Your task to perform on an android device: When is my next meeting? Image 0: 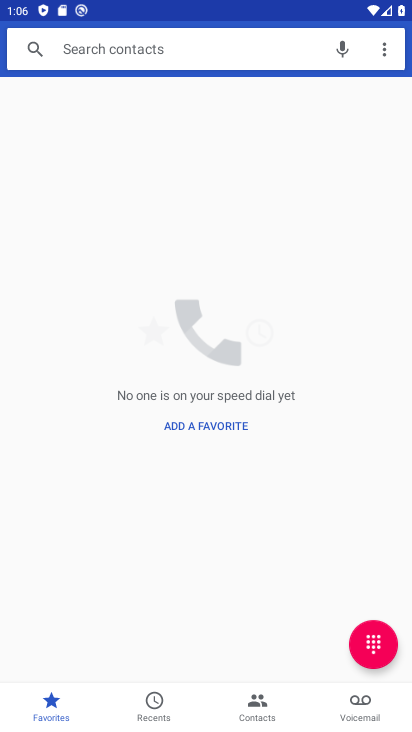
Step 0: press home button
Your task to perform on an android device: When is my next meeting? Image 1: 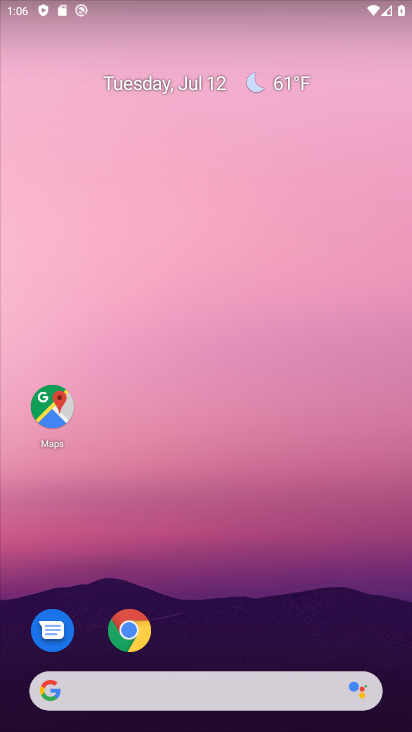
Step 1: drag from (207, 601) to (227, 176)
Your task to perform on an android device: When is my next meeting? Image 2: 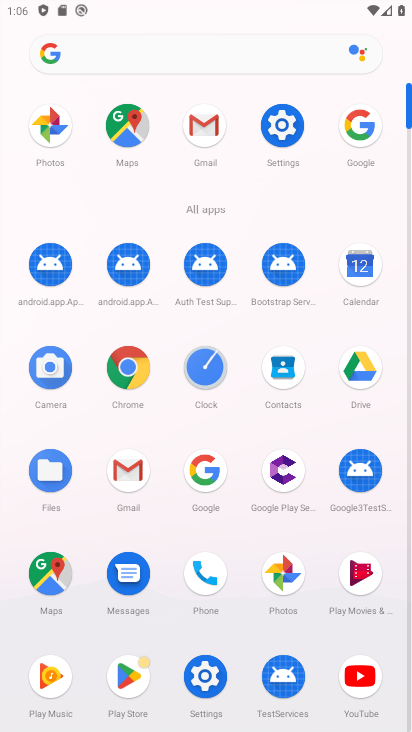
Step 2: click (341, 264)
Your task to perform on an android device: When is my next meeting? Image 3: 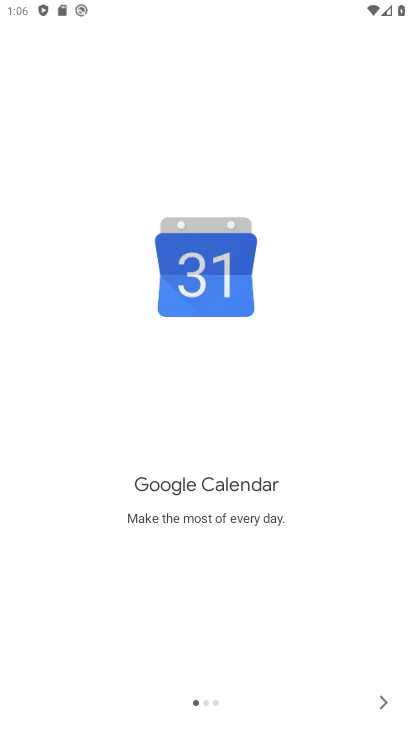
Step 3: click (378, 703)
Your task to perform on an android device: When is my next meeting? Image 4: 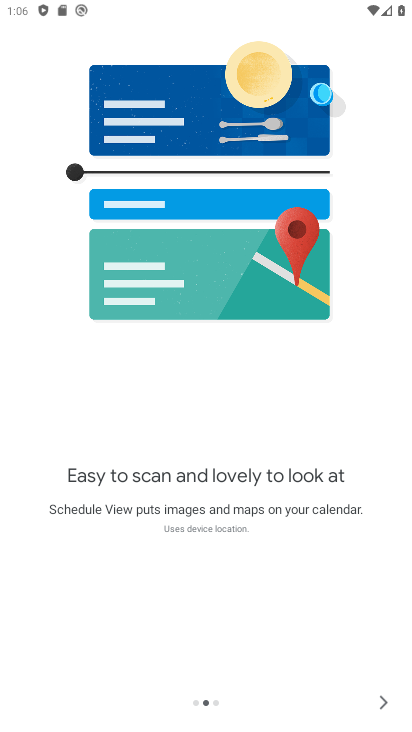
Step 4: click (378, 703)
Your task to perform on an android device: When is my next meeting? Image 5: 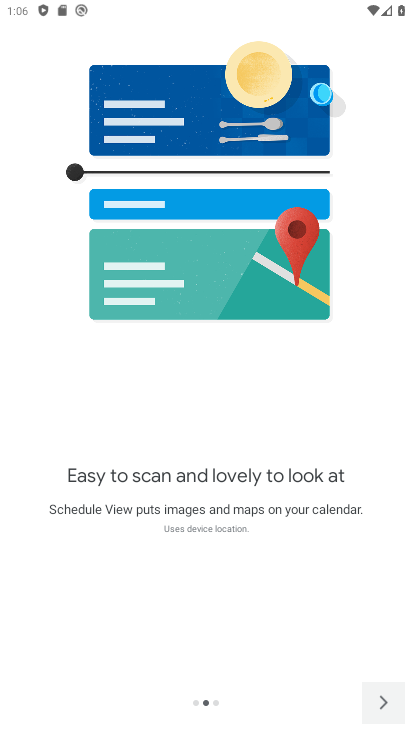
Step 5: click (378, 703)
Your task to perform on an android device: When is my next meeting? Image 6: 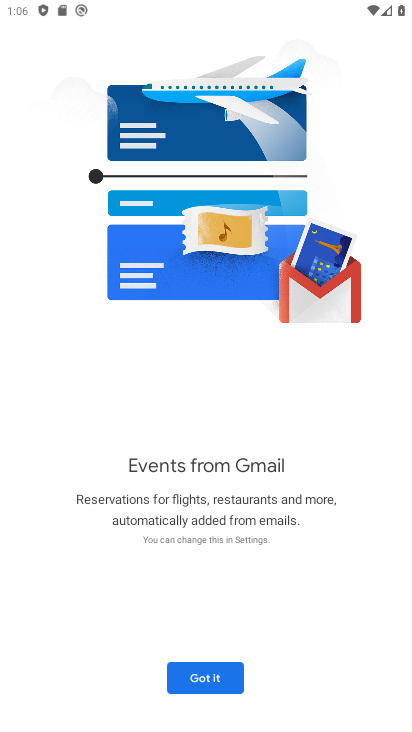
Step 6: click (205, 687)
Your task to perform on an android device: When is my next meeting? Image 7: 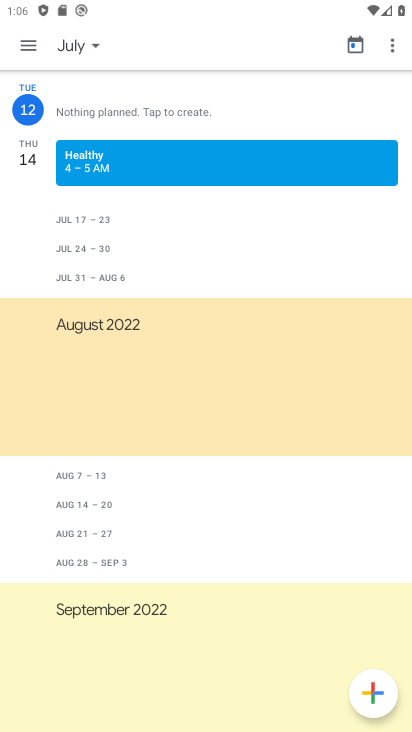
Step 7: click (27, 56)
Your task to perform on an android device: When is my next meeting? Image 8: 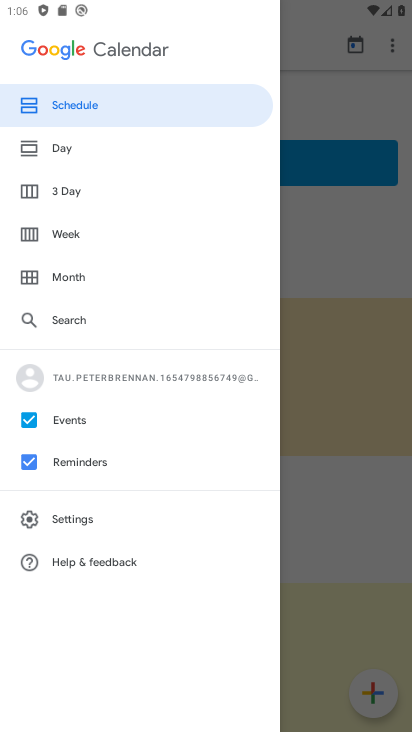
Step 8: click (298, 228)
Your task to perform on an android device: When is my next meeting? Image 9: 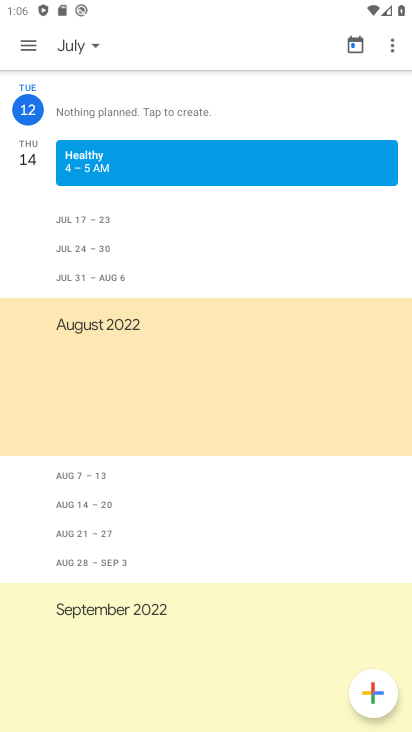
Step 9: task complete